Your task to perform on an android device: Clear the shopping cart on ebay.com. Add macbook pro 15 inch to the cart on ebay.com Image 0: 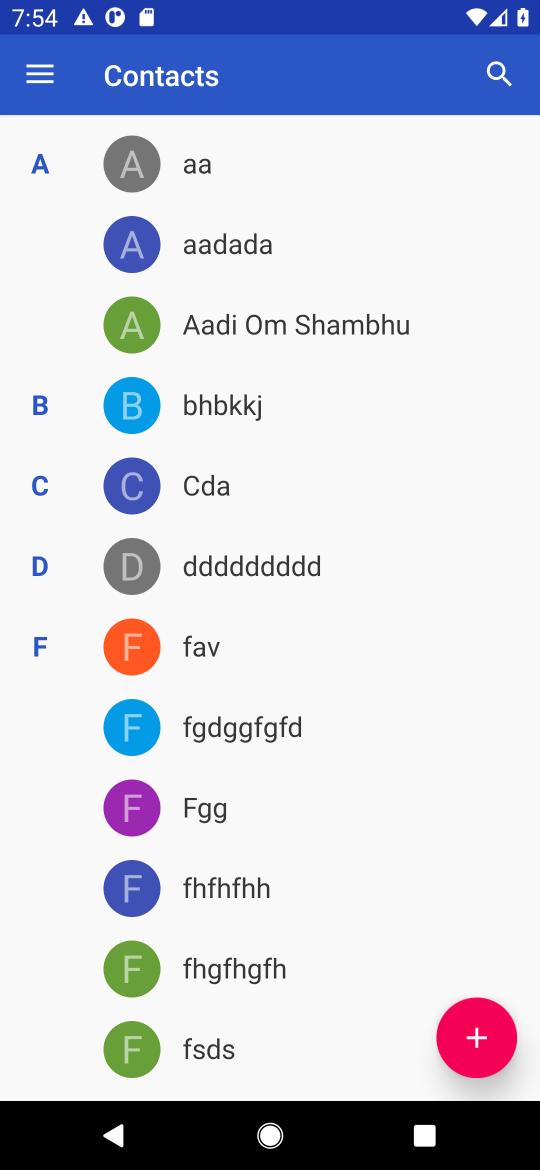
Step 0: press home button
Your task to perform on an android device: Clear the shopping cart on ebay.com. Add macbook pro 15 inch to the cart on ebay.com Image 1: 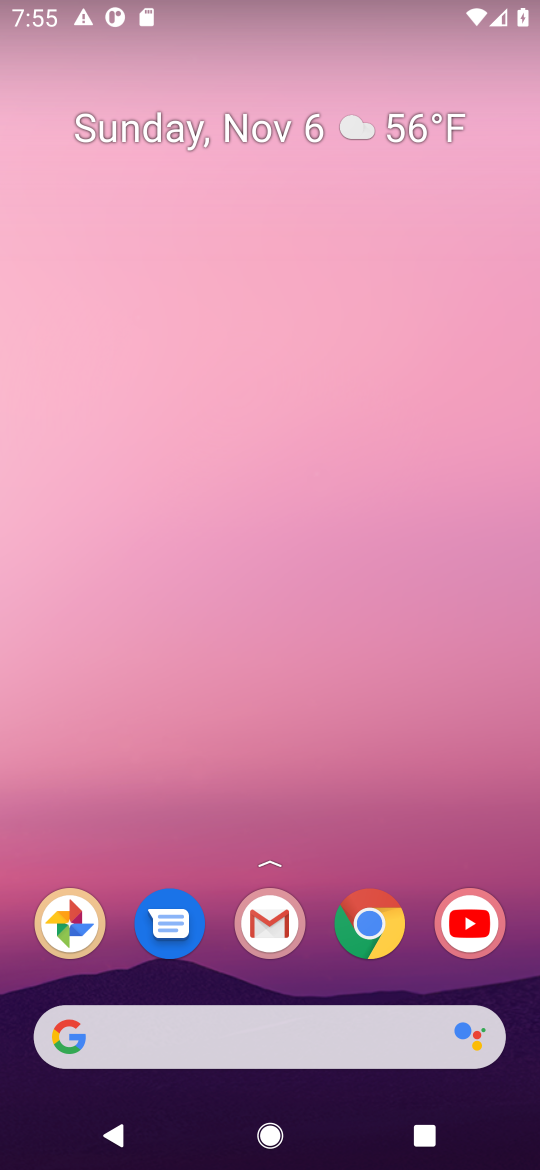
Step 1: click (369, 951)
Your task to perform on an android device: Clear the shopping cart on ebay.com. Add macbook pro 15 inch to the cart on ebay.com Image 2: 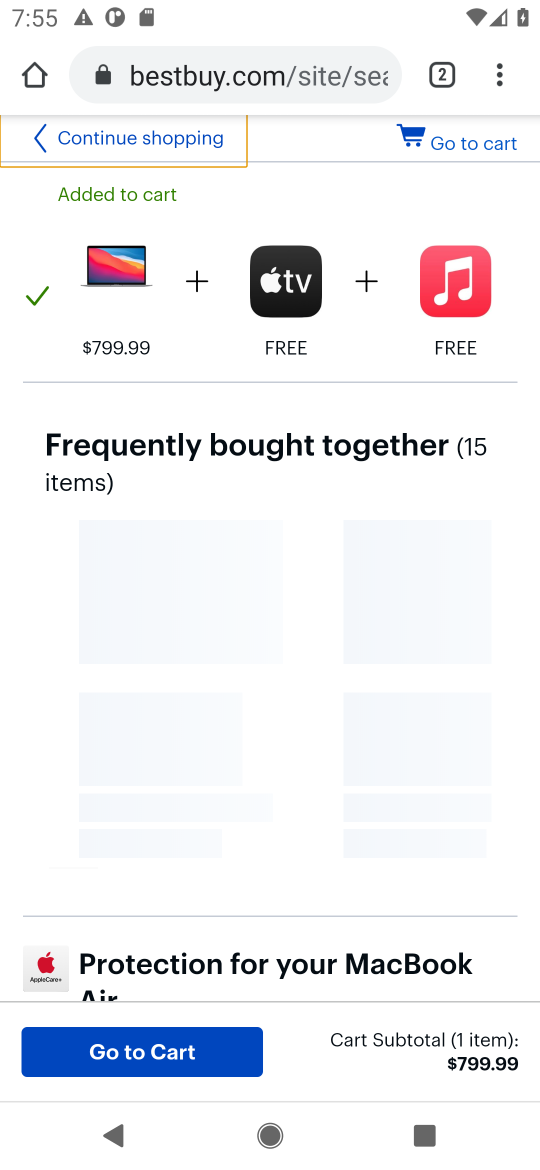
Step 2: click (228, 73)
Your task to perform on an android device: Clear the shopping cart on ebay.com. Add macbook pro 15 inch to the cart on ebay.com Image 3: 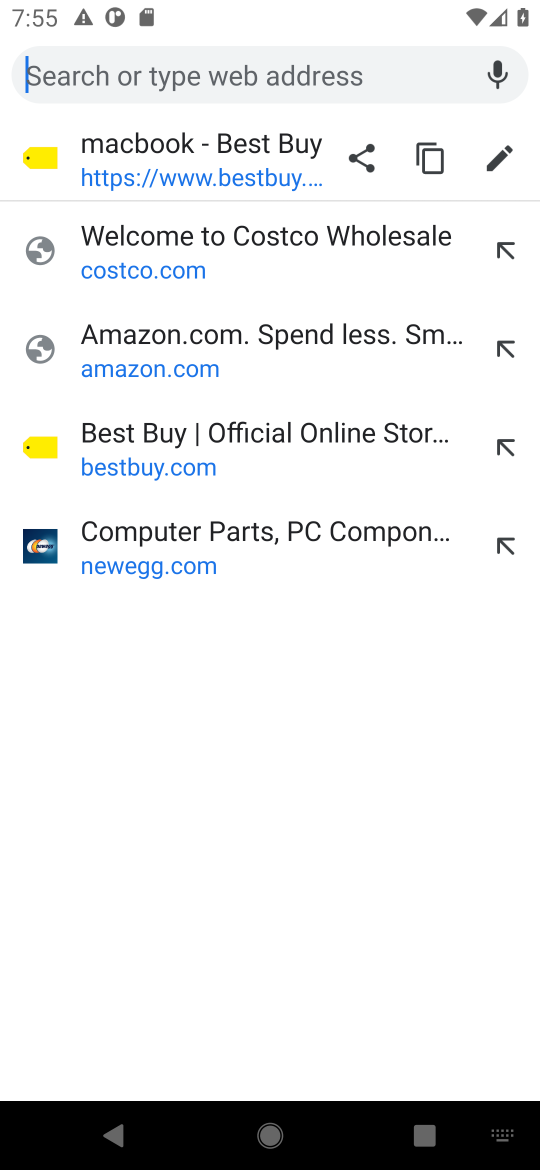
Step 3: type "ebay.com"
Your task to perform on an android device: Clear the shopping cart on ebay.com. Add macbook pro 15 inch to the cart on ebay.com Image 4: 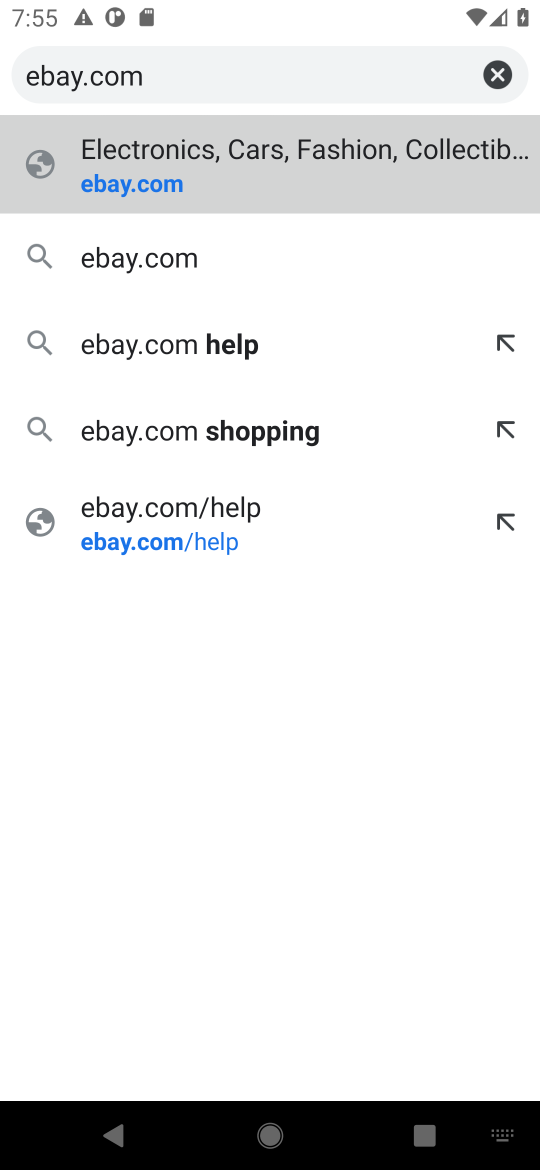
Step 4: click (98, 240)
Your task to perform on an android device: Clear the shopping cart on ebay.com. Add macbook pro 15 inch to the cart on ebay.com Image 5: 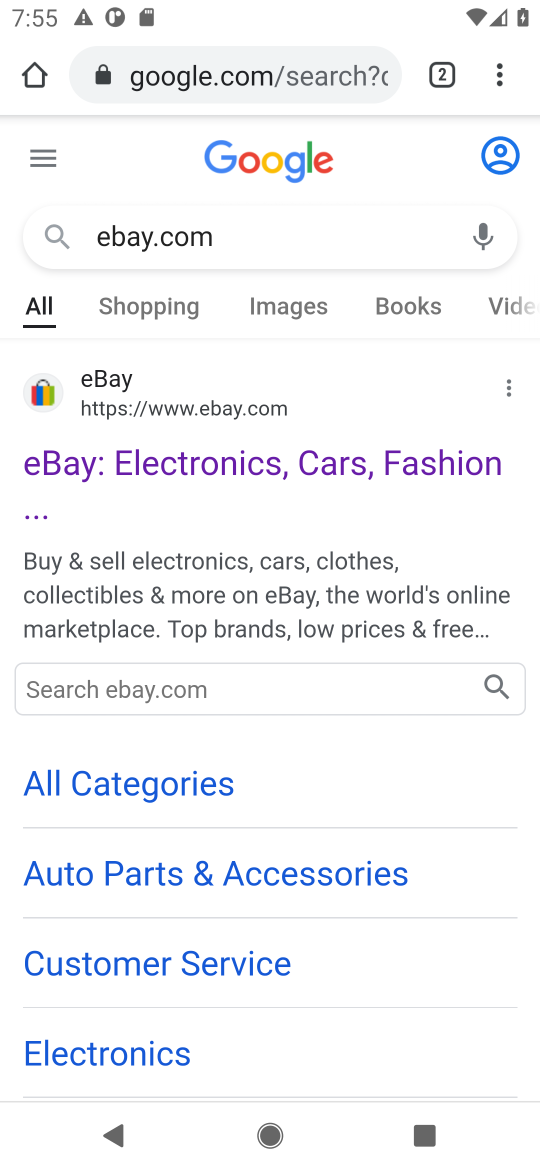
Step 5: drag from (175, 772) to (159, 339)
Your task to perform on an android device: Clear the shopping cart on ebay.com. Add macbook pro 15 inch to the cart on ebay.com Image 6: 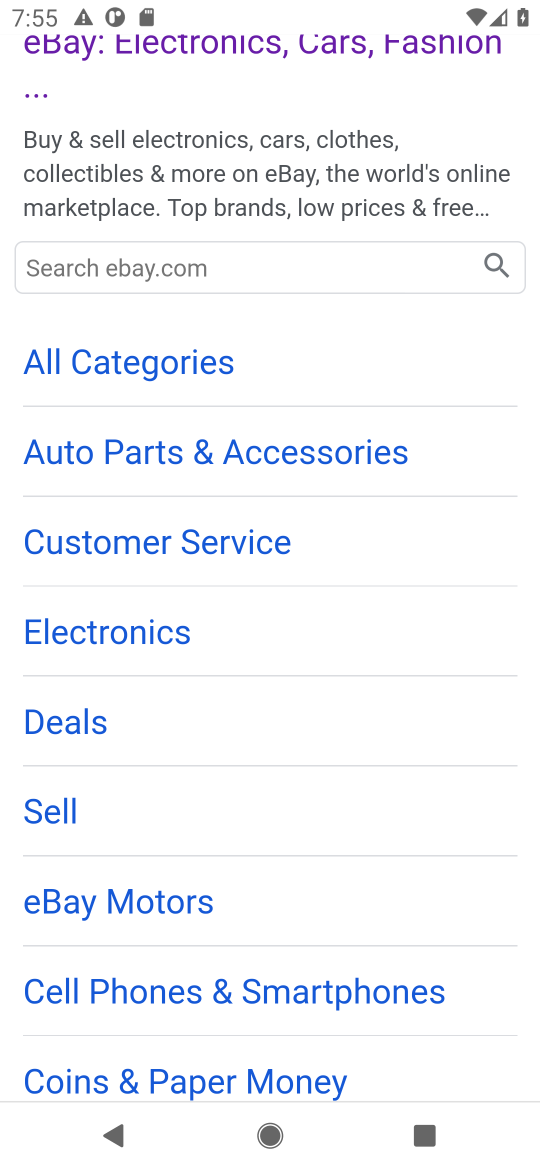
Step 6: drag from (188, 926) to (175, 305)
Your task to perform on an android device: Clear the shopping cart on ebay.com. Add macbook pro 15 inch to the cart on ebay.com Image 7: 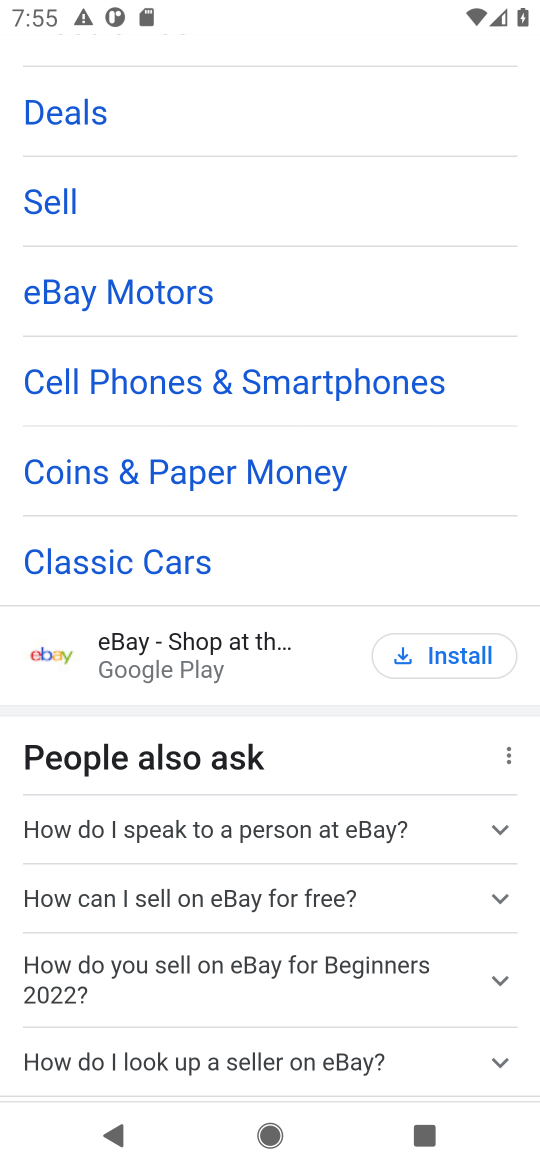
Step 7: drag from (197, 381) to (197, 961)
Your task to perform on an android device: Clear the shopping cart on ebay.com. Add macbook pro 15 inch to the cart on ebay.com Image 8: 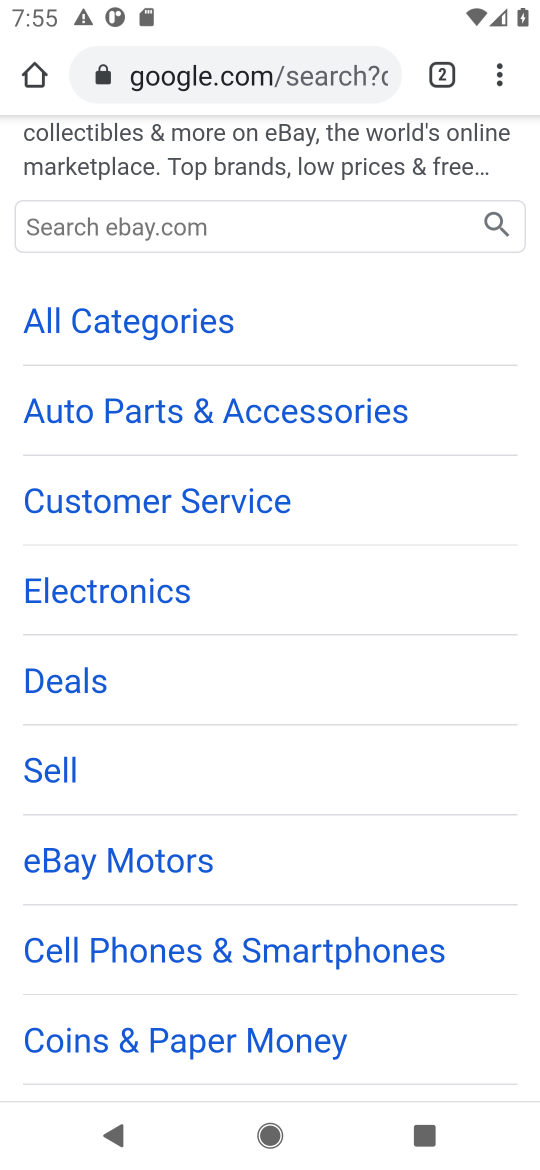
Step 8: drag from (160, 313) to (160, 774)
Your task to perform on an android device: Clear the shopping cart on ebay.com. Add macbook pro 15 inch to the cart on ebay.com Image 9: 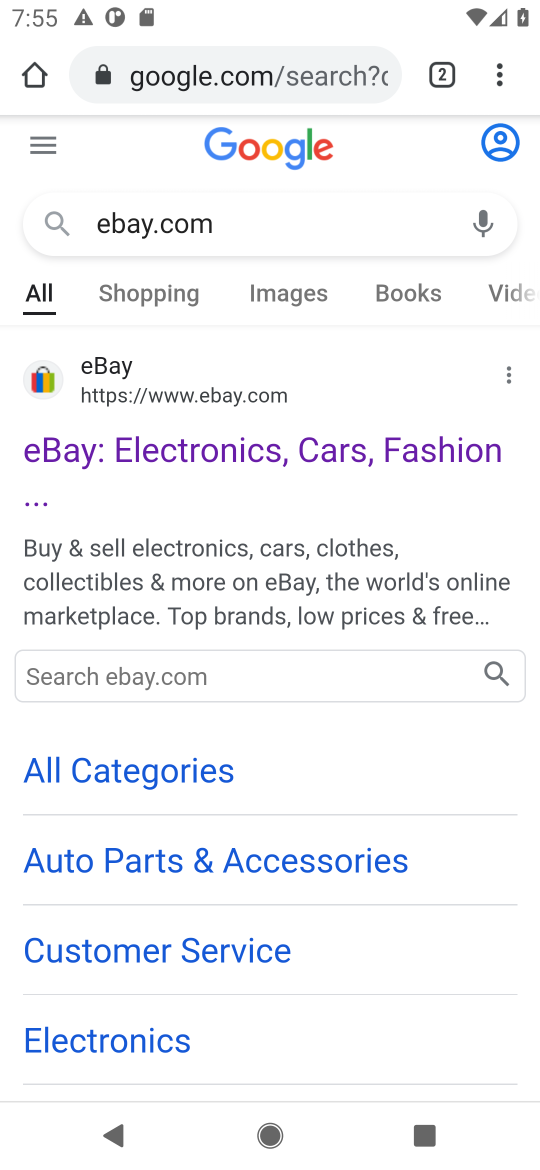
Step 9: click (98, 432)
Your task to perform on an android device: Clear the shopping cart on ebay.com. Add macbook pro 15 inch to the cart on ebay.com Image 10: 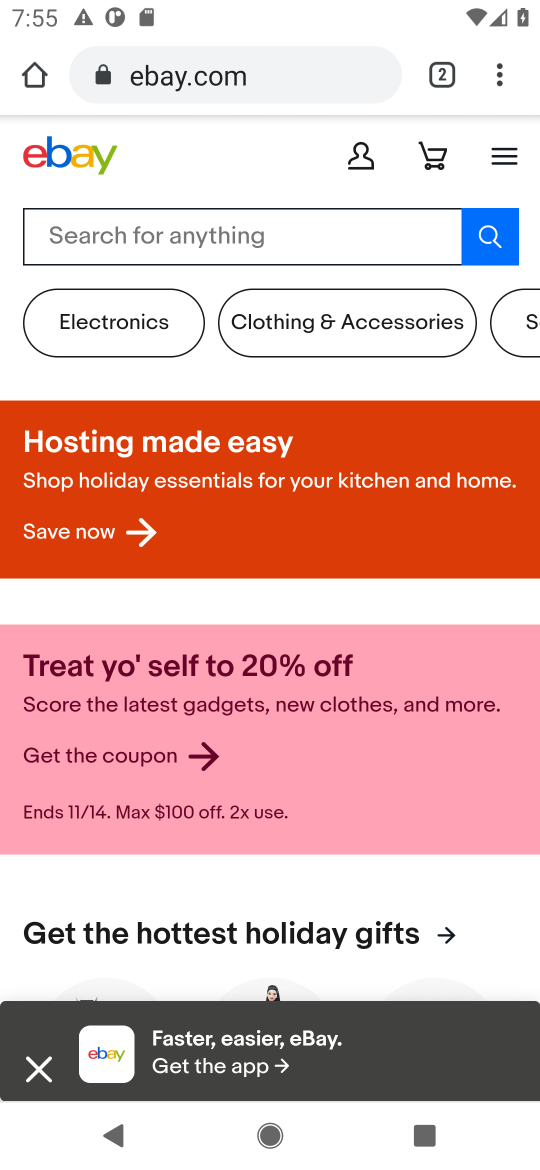
Step 10: click (107, 242)
Your task to perform on an android device: Clear the shopping cart on ebay.com. Add macbook pro 15 inch to the cart on ebay.com Image 11: 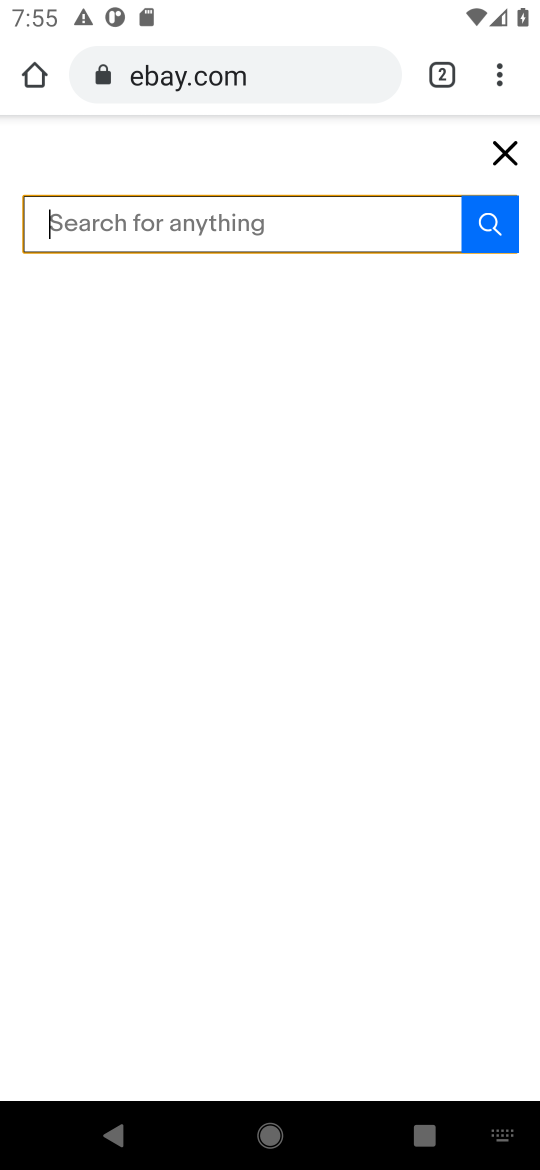
Step 11: click (507, 144)
Your task to perform on an android device: Clear the shopping cart on ebay.com. Add macbook pro 15 inch to the cart on ebay.com Image 12: 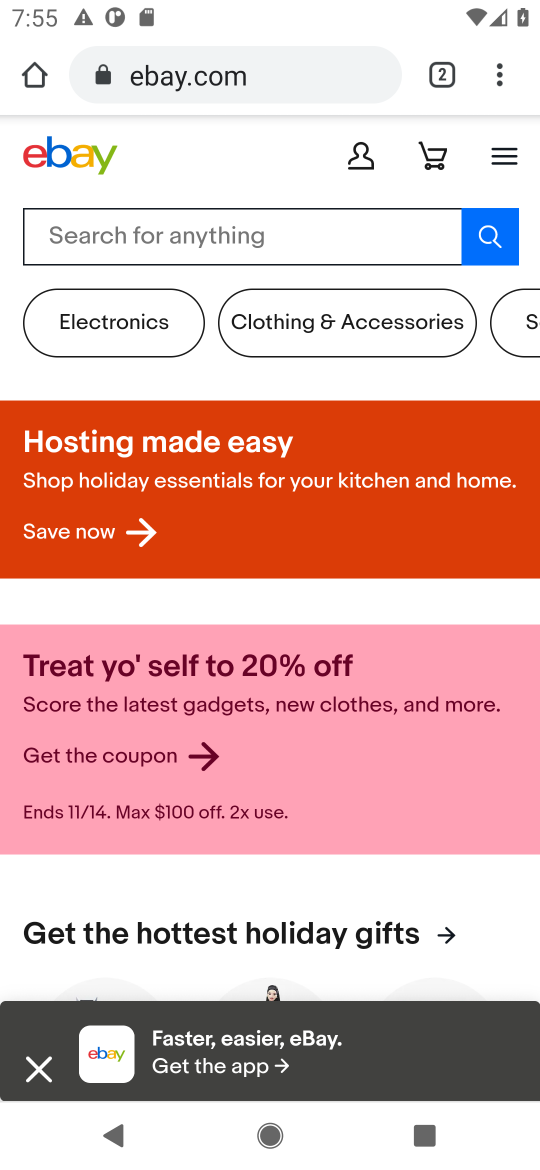
Step 12: click (435, 158)
Your task to perform on an android device: Clear the shopping cart on ebay.com. Add macbook pro 15 inch to the cart on ebay.com Image 13: 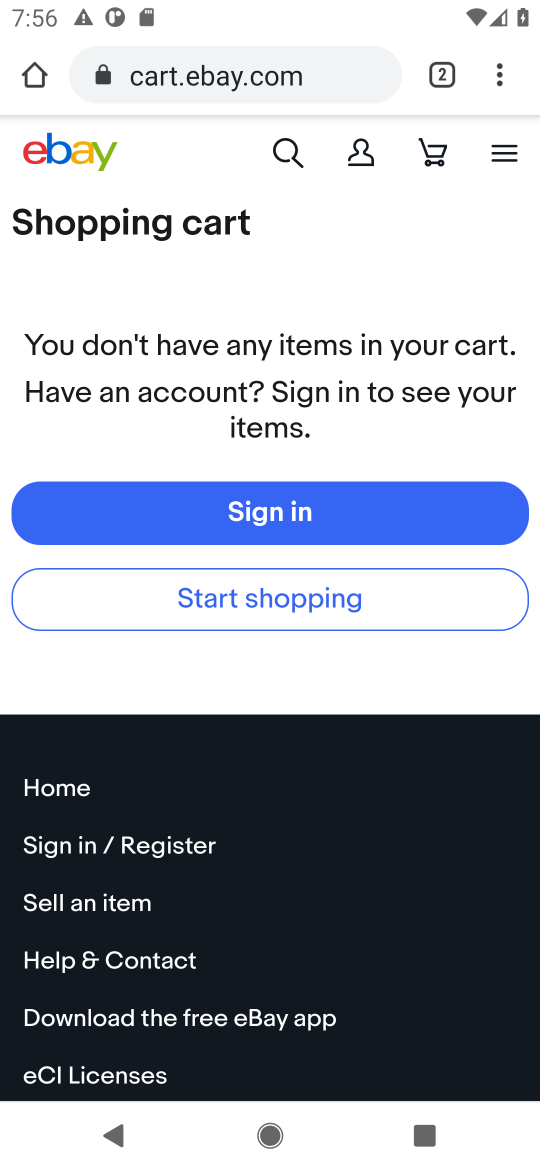
Step 13: click (292, 159)
Your task to perform on an android device: Clear the shopping cart on ebay.com. Add macbook pro 15 inch to the cart on ebay.com Image 14: 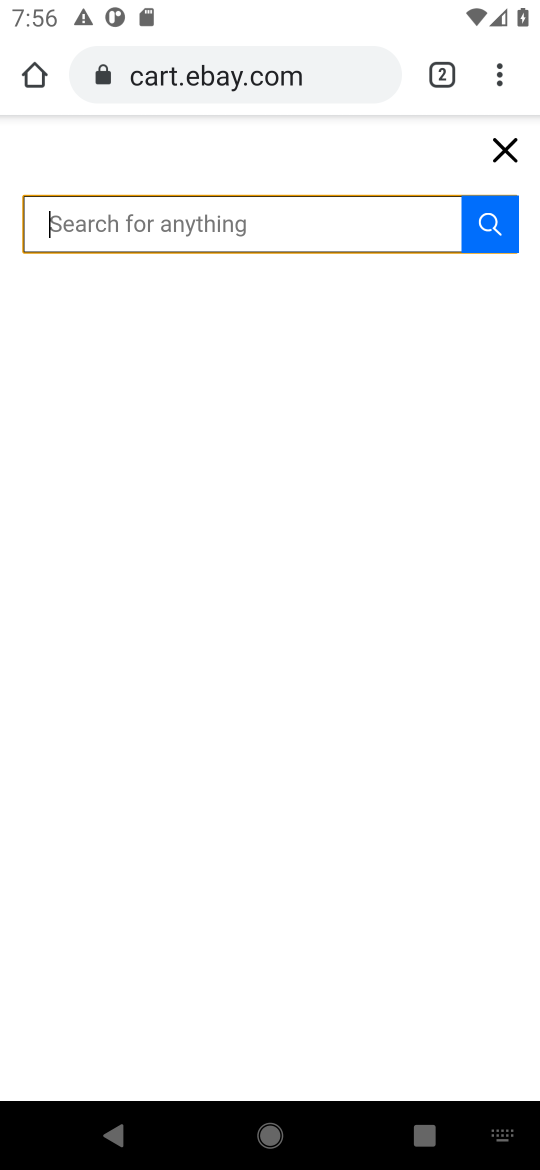
Step 14: type "macbook pro 15 inch "
Your task to perform on an android device: Clear the shopping cart on ebay.com. Add macbook pro 15 inch to the cart on ebay.com Image 15: 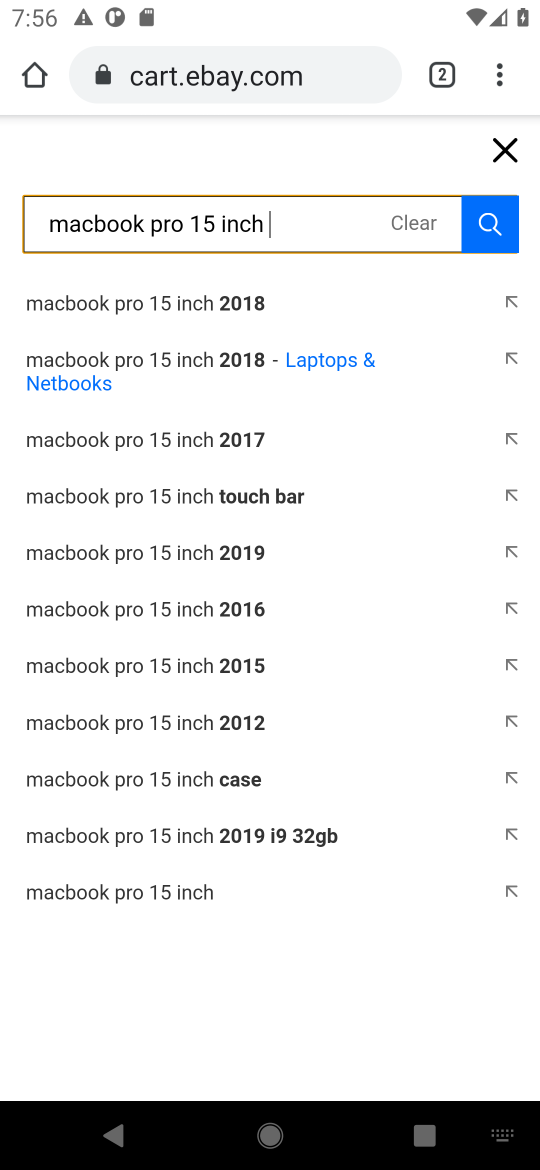
Step 15: click (482, 228)
Your task to perform on an android device: Clear the shopping cart on ebay.com. Add macbook pro 15 inch to the cart on ebay.com Image 16: 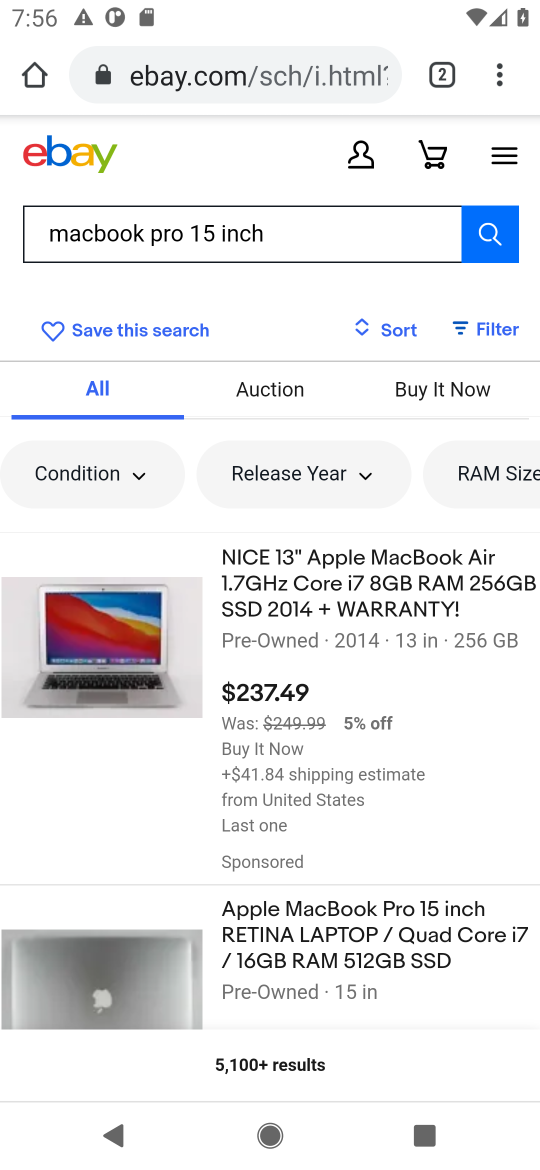
Step 16: click (250, 978)
Your task to perform on an android device: Clear the shopping cart on ebay.com. Add macbook pro 15 inch to the cart on ebay.com Image 17: 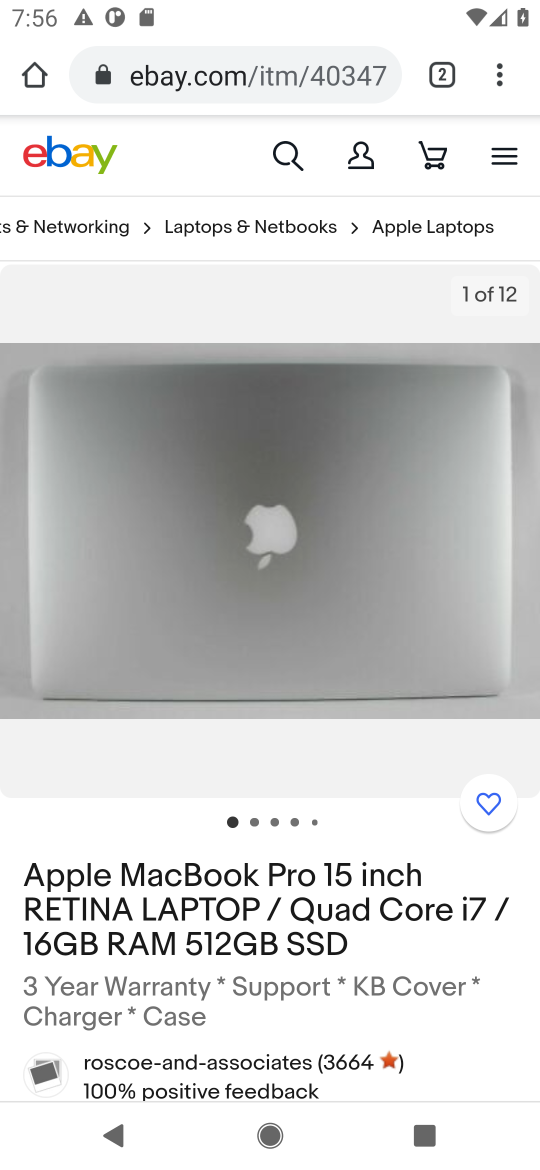
Step 17: drag from (250, 976) to (302, 360)
Your task to perform on an android device: Clear the shopping cart on ebay.com. Add macbook pro 15 inch to the cart on ebay.com Image 18: 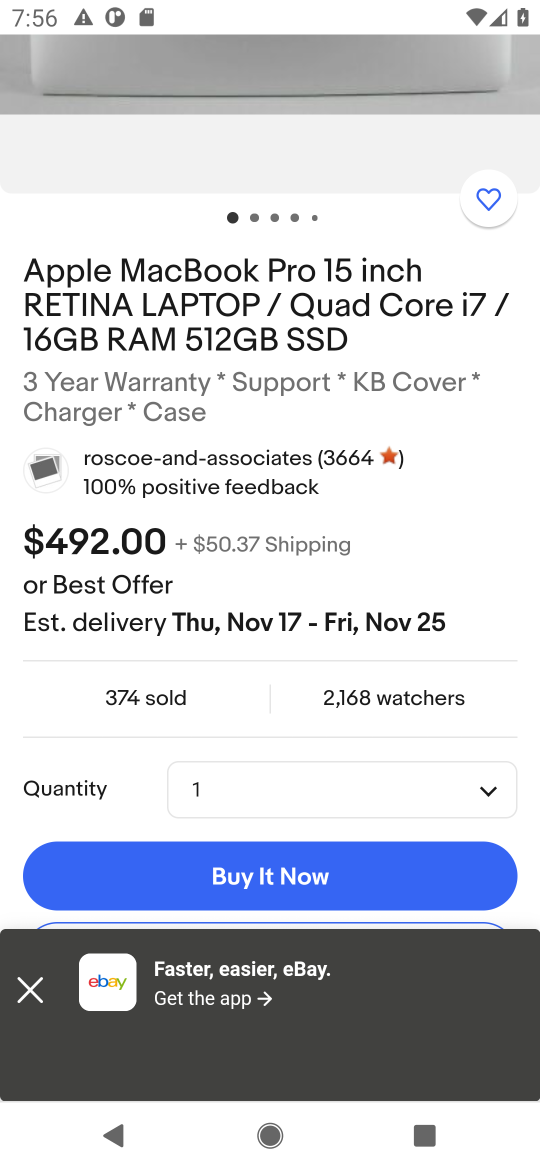
Step 18: drag from (263, 880) to (285, 439)
Your task to perform on an android device: Clear the shopping cart on ebay.com. Add macbook pro 15 inch to the cart on ebay.com Image 19: 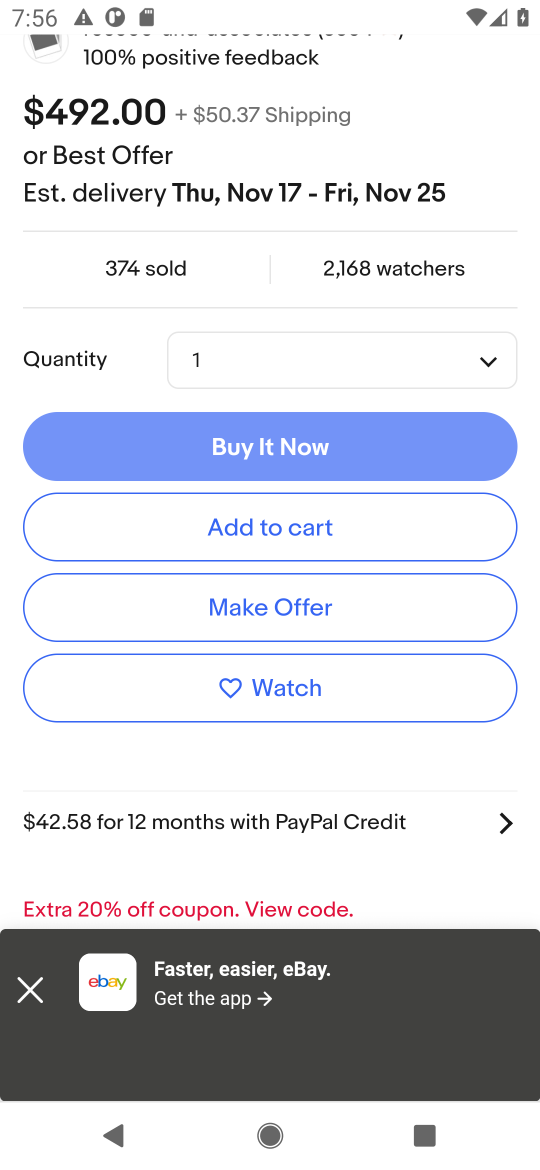
Step 19: click (44, 994)
Your task to perform on an android device: Clear the shopping cart on ebay.com. Add macbook pro 15 inch to the cart on ebay.com Image 20: 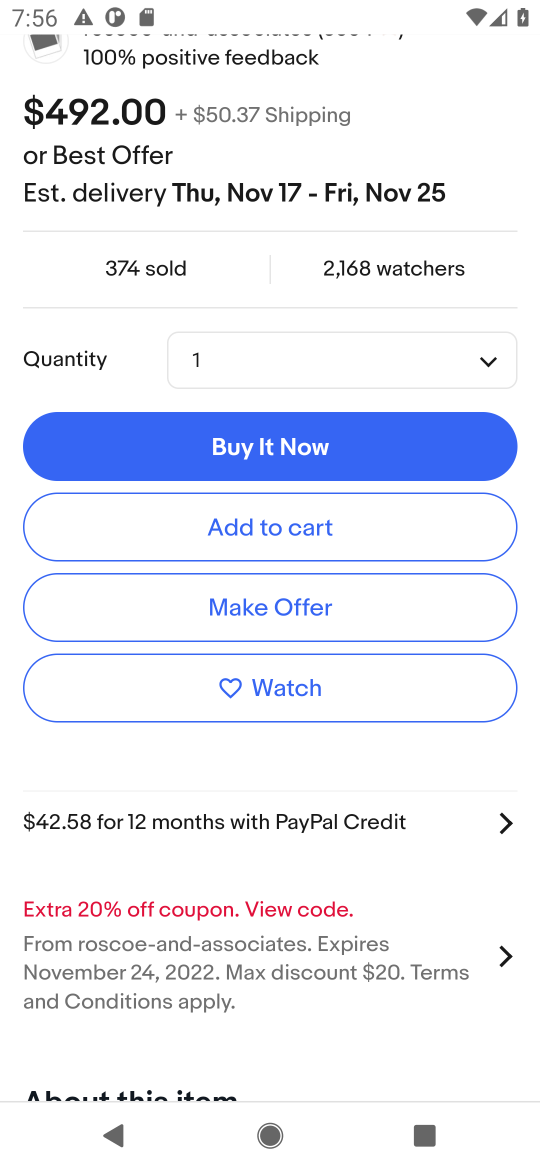
Step 20: click (272, 526)
Your task to perform on an android device: Clear the shopping cart on ebay.com. Add macbook pro 15 inch to the cart on ebay.com Image 21: 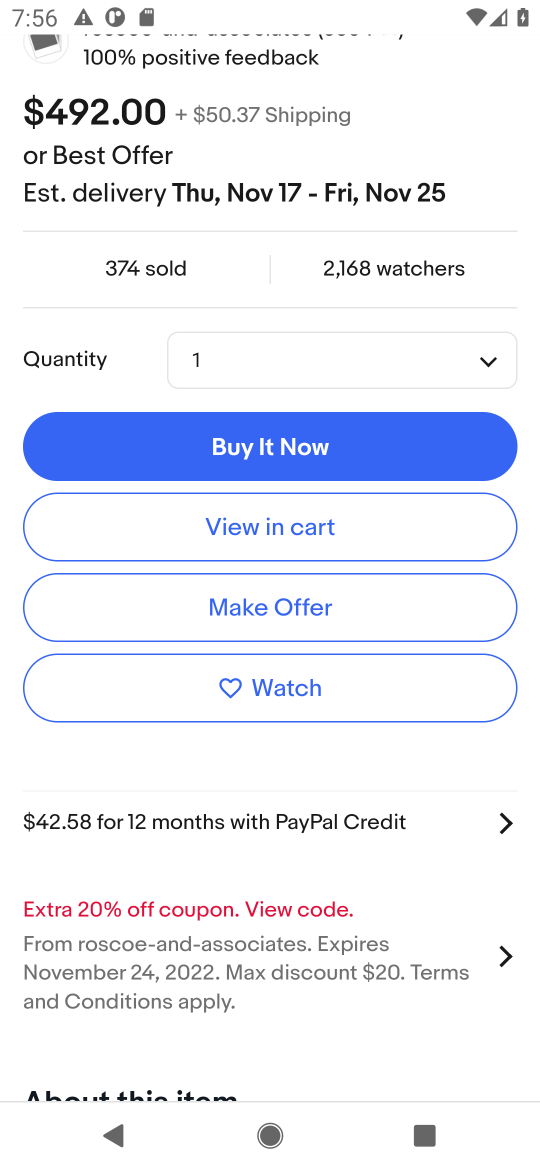
Step 21: task complete